Your task to perform on an android device: open a bookmark in the chrome app Image 0: 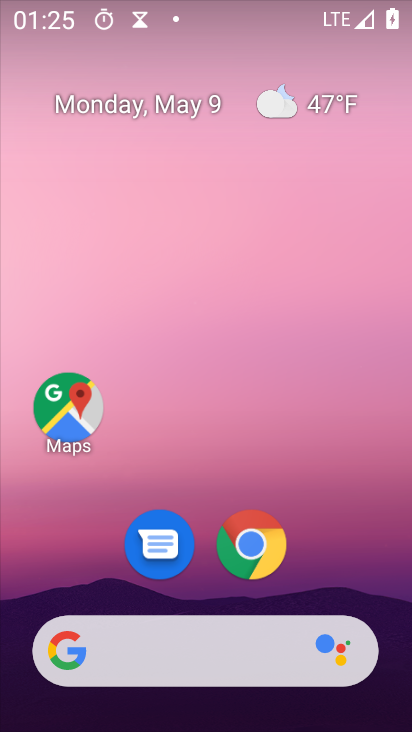
Step 0: drag from (371, 595) to (372, 34)
Your task to perform on an android device: open a bookmark in the chrome app Image 1: 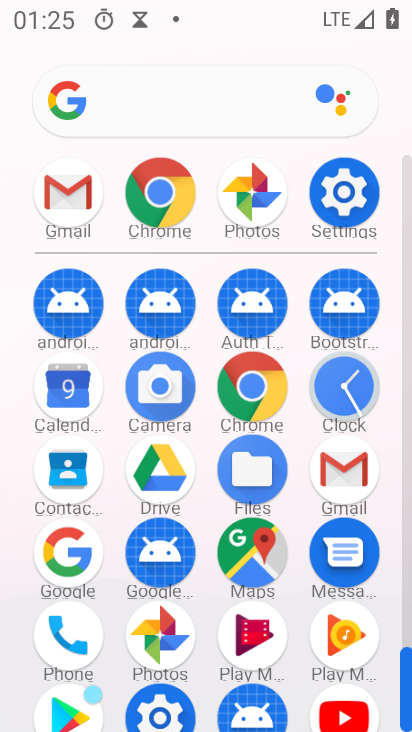
Step 1: click (250, 391)
Your task to perform on an android device: open a bookmark in the chrome app Image 2: 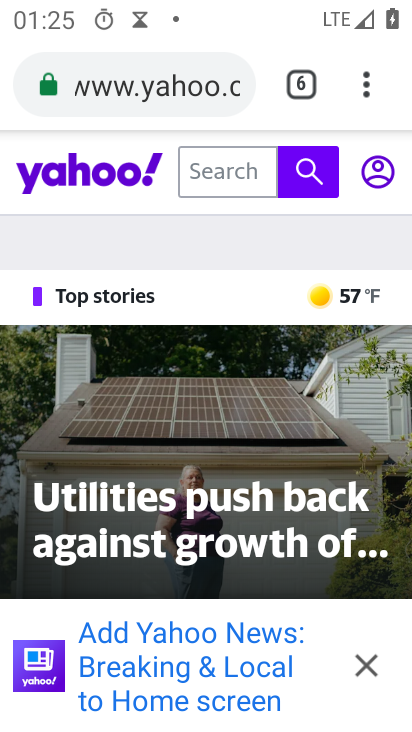
Step 2: task complete